Your task to perform on an android device: turn on improve location accuracy Image 0: 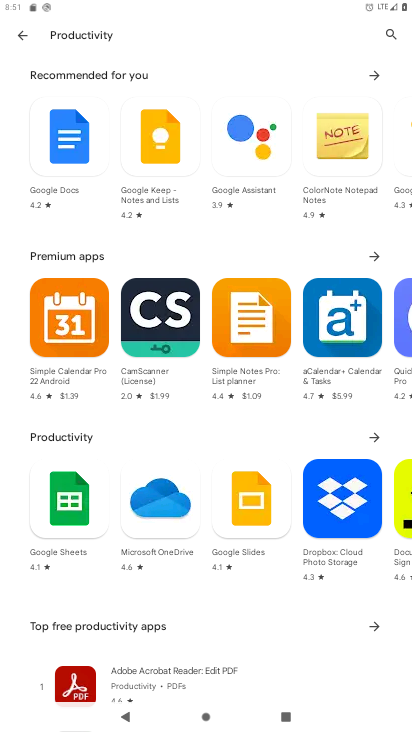
Step 0: press home button
Your task to perform on an android device: turn on improve location accuracy Image 1: 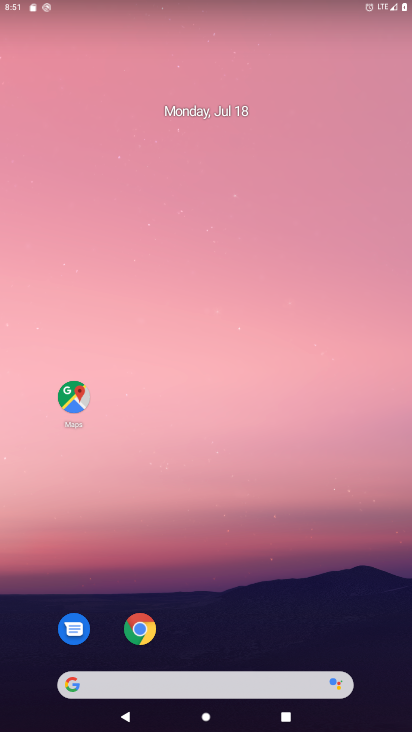
Step 1: drag from (212, 612) to (151, 14)
Your task to perform on an android device: turn on improve location accuracy Image 2: 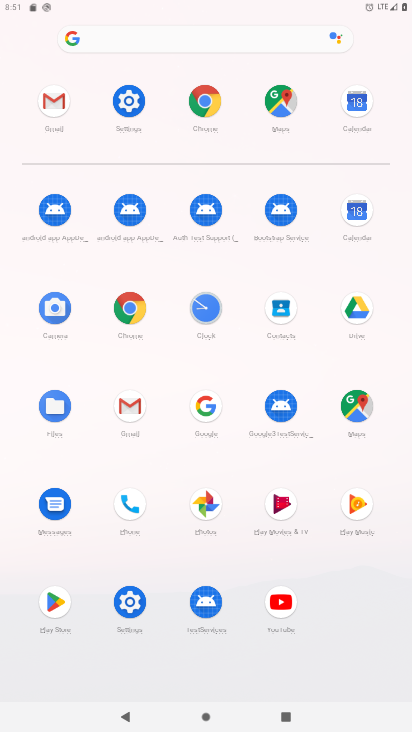
Step 2: click (135, 614)
Your task to perform on an android device: turn on improve location accuracy Image 3: 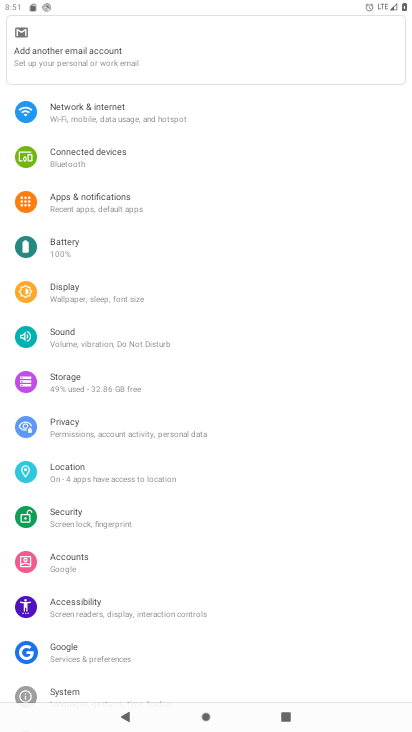
Step 3: click (133, 476)
Your task to perform on an android device: turn on improve location accuracy Image 4: 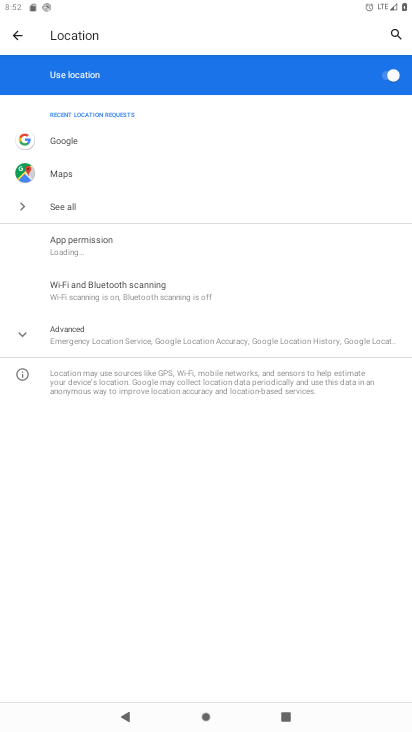
Step 4: click (116, 341)
Your task to perform on an android device: turn on improve location accuracy Image 5: 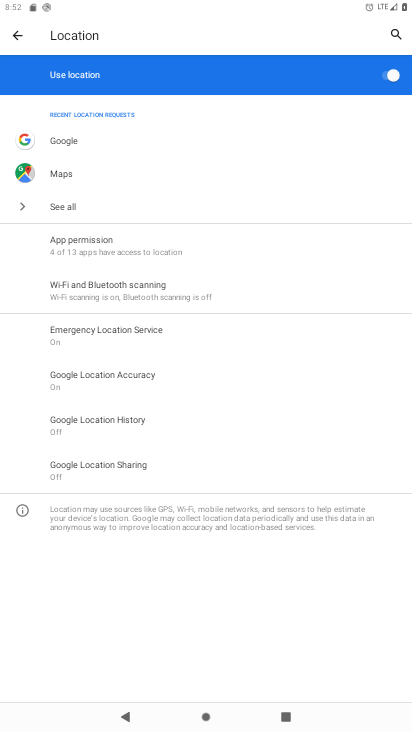
Step 5: click (147, 385)
Your task to perform on an android device: turn on improve location accuracy Image 6: 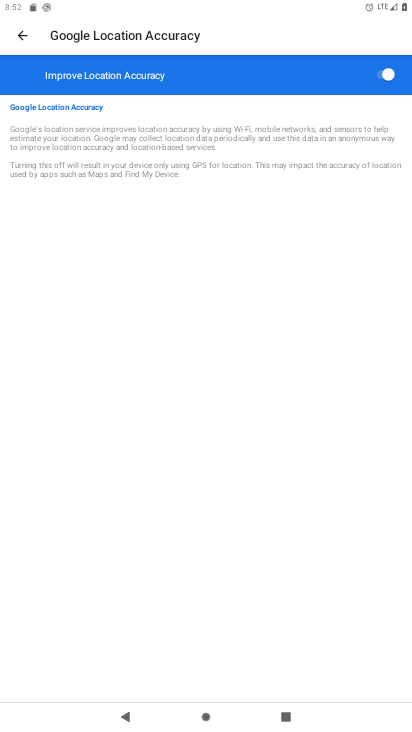
Step 6: task complete